Your task to perform on an android device: turn off improve location accuracy Image 0: 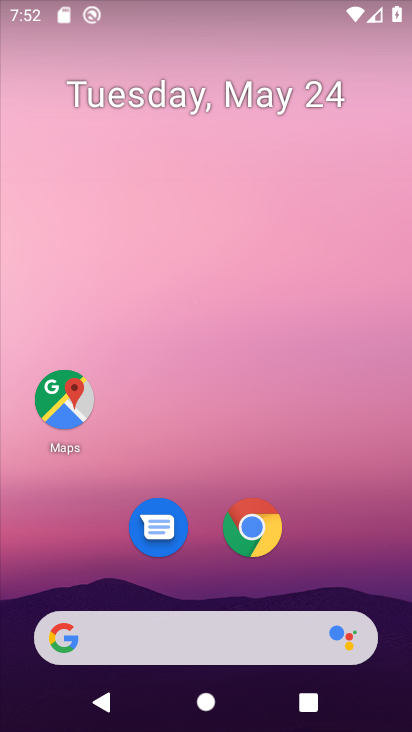
Step 0: drag from (355, 519) to (300, 120)
Your task to perform on an android device: turn off improve location accuracy Image 1: 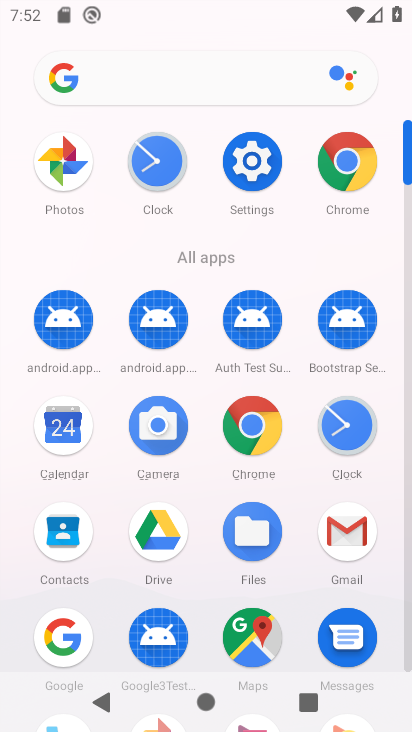
Step 1: click (272, 145)
Your task to perform on an android device: turn off improve location accuracy Image 2: 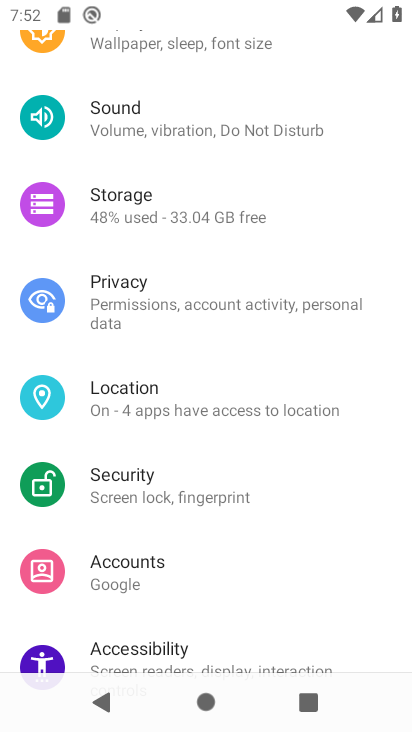
Step 2: drag from (277, 585) to (277, 482)
Your task to perform on an android device: turn off improve location accuracy Image 3: 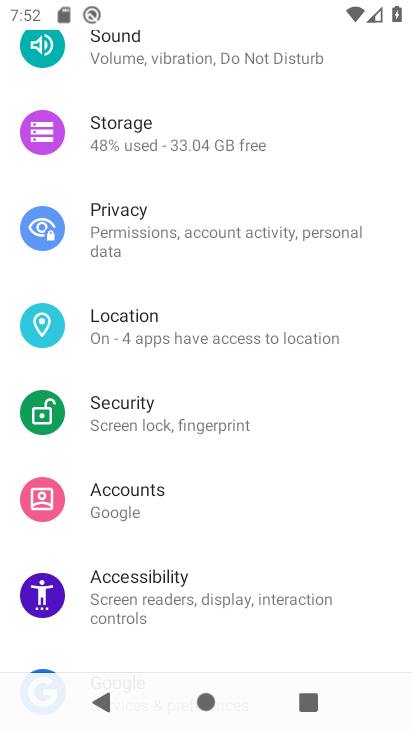
Step 3: click (215, 332)
Your task to perform on an android device: turn off improve location accuracy Image 4: 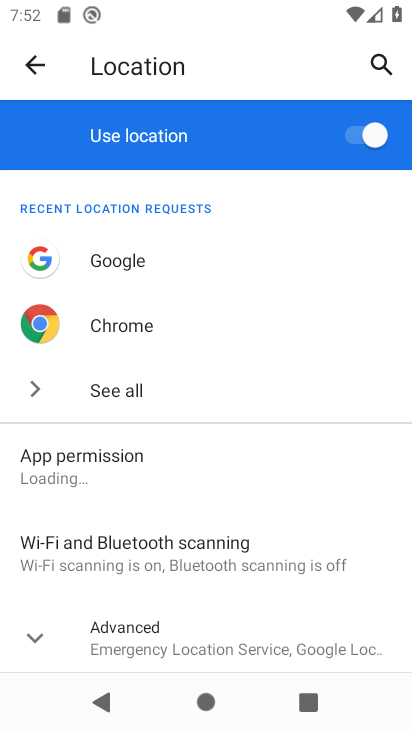
Step 4: click (131, 640)
Your task to perform on an android device: turn off improve location accuracy Image 5: 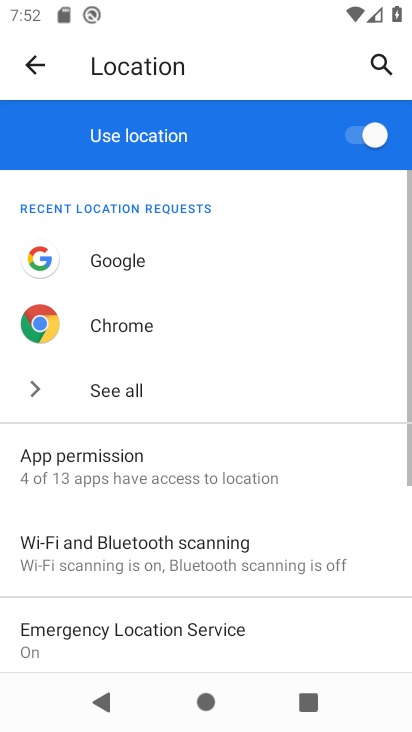
Step 5: drag from (137, 633) to (212, 305)
Your task to perform on an android device: turn off improve location accuracy Image 6: 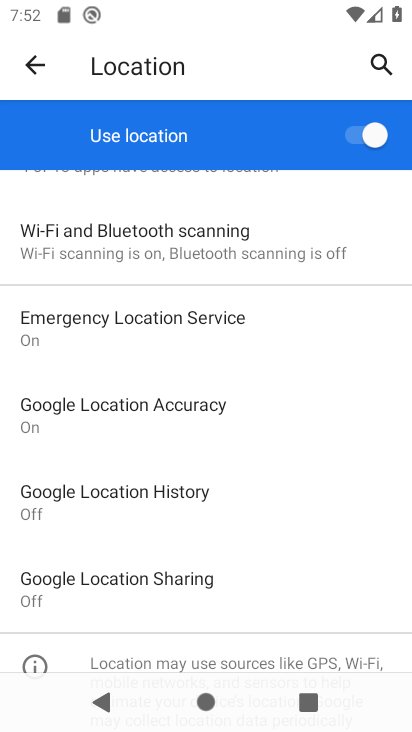
Step 6: click (138, 395)
Your task to perform on an android device: turn off improve location accuracy Image 7: 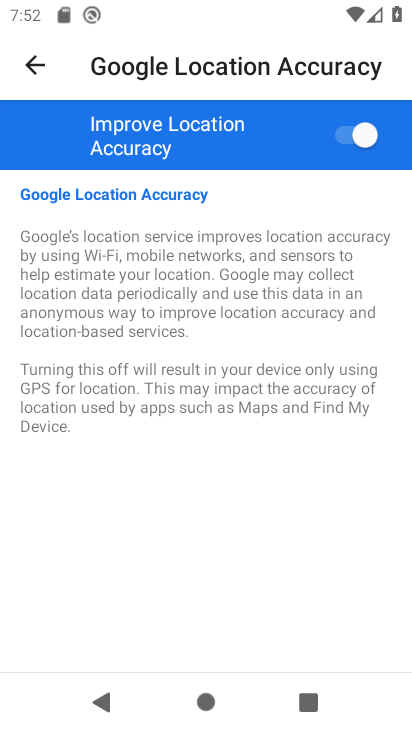
Step 7: click (355, 133)
Your task to perform on an android device: turn off improve location accuracy Image 8: 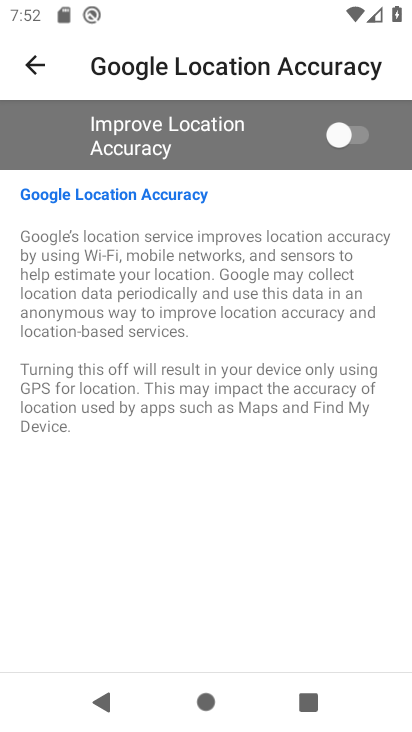
Step 8: task complete